Your task to perform on an android device: turn off location Image 0: 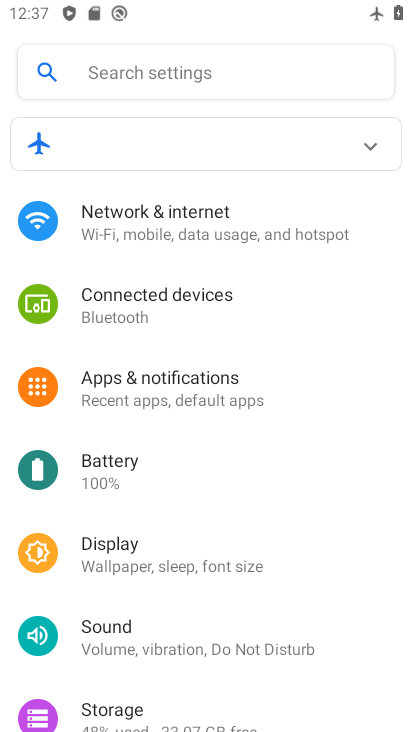
Step 0: drag from (268, 553) to (255, 284)
Your task to perform on an android device: turn off location Image 1: 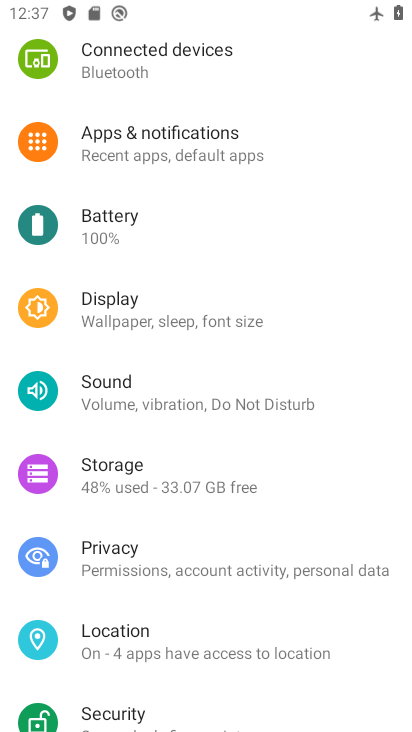
Step 1: drag from (212, 193) to (182, 410)
Your task to perform on an android device: turn off location Image 2: 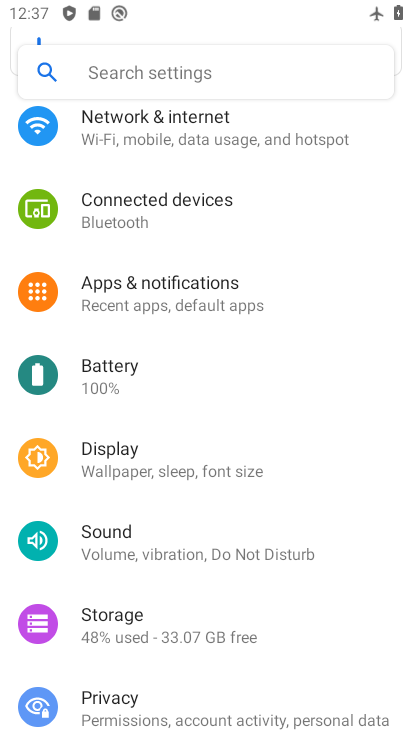
Step 2: drag from (180, 509) to (180, 114)
Your task to perform on an android device: turn off location Image 3: 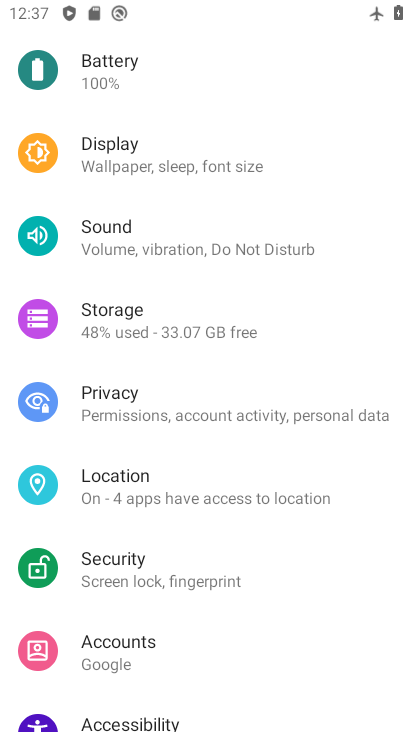
Step 3: drag from (197, 297) to (190, 411)
Your task to perform on an android device: turn off location Image 4: 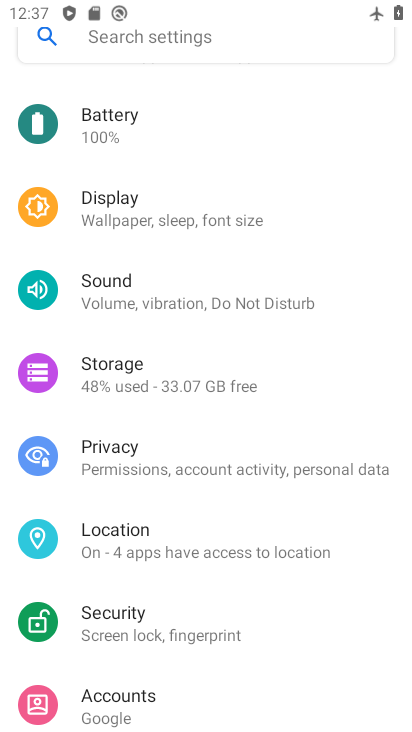
Step 4: click (197, 553)
Your task to perform on an android device: turn off location Image 5: 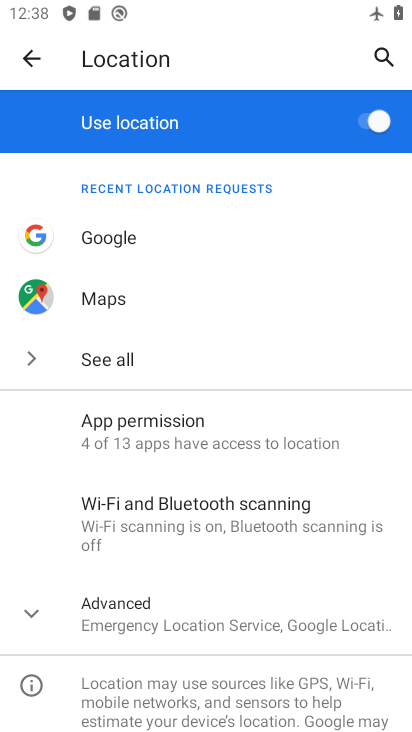
Step 5: click (360, 128)
Your task to perform on an android device: turn off location Image 6: 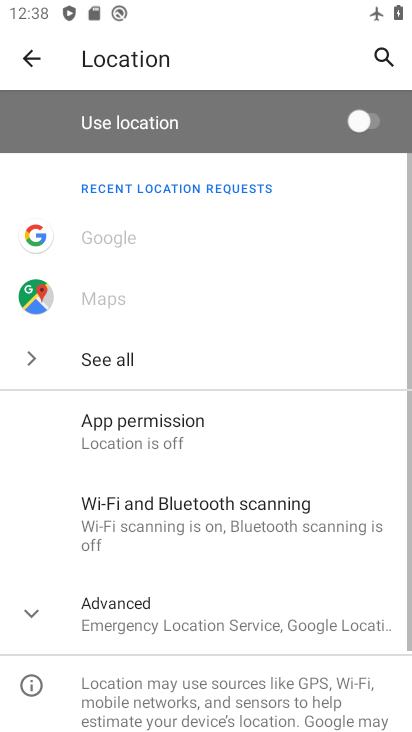
Step 6: task complete